Your task to perform on an android device: toggle improve location accuracy Image 0: 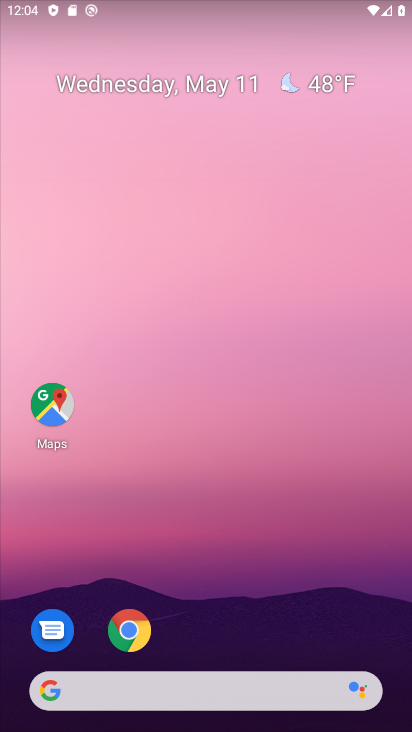
Step 0: drag from (223, 665) to (193, 0)
Your task to perform on an android device: toggle improve location accuracy Image 1: 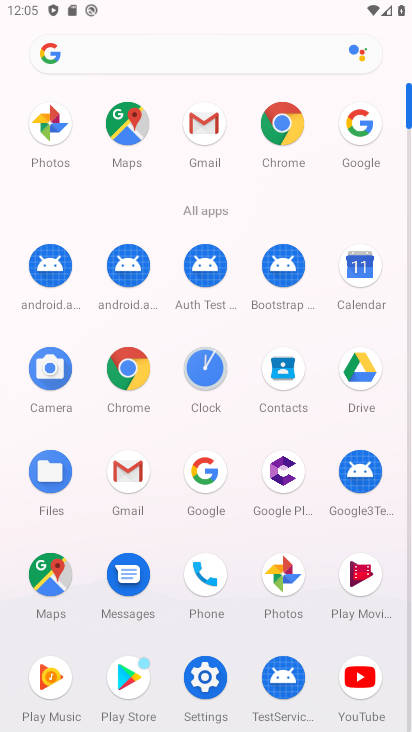
Step 1: click (201, 682)
Your task to perform on an android device: toggle improve location accuracy Image 2: 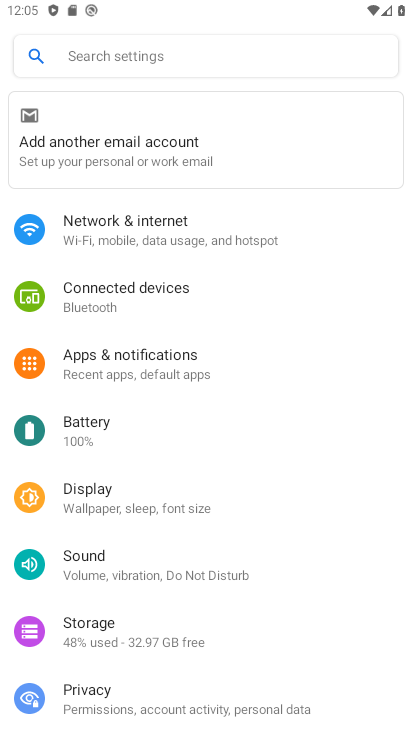
Step 2: drag from (174, 664) to (135, 189)
Your task to perform on an android device: toggle improve location accuracy Image 3: 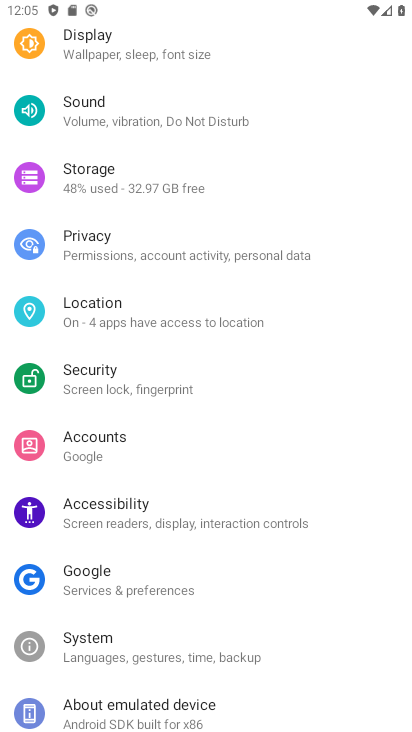
Step 3: click (85, 315)
Your task to perform on an android device: toggle improve location accuracy Image 4: 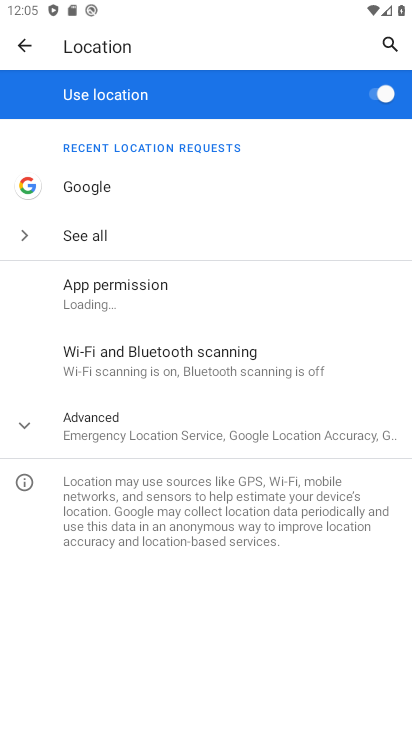
Step 4: click (125, 418)
Your task to perform on an android device: toggle improve location accuracy Image 5: 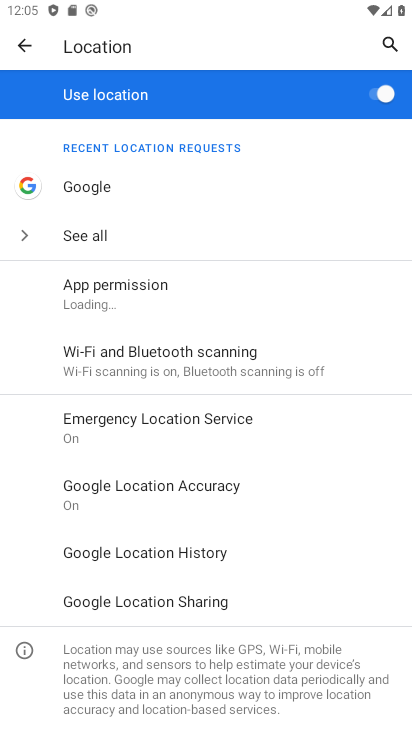
Step 5: click (162, 490)
Your task to perform on an android device: toggle improve location accuracy Image 6: 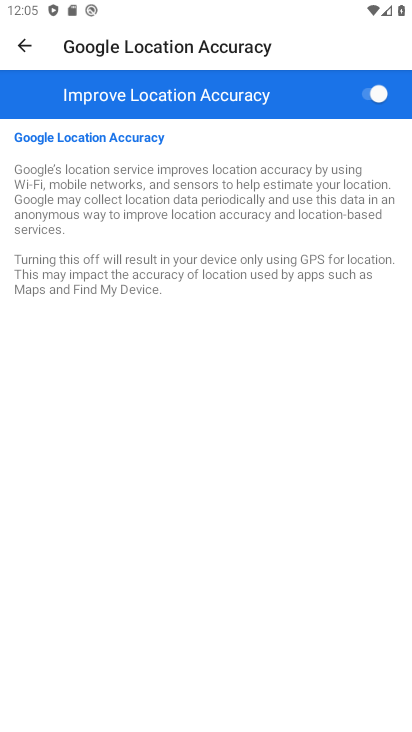
Step 6: click (356, 96)
Your task to perform on an android device: toggle improve location accuracy Image 7: 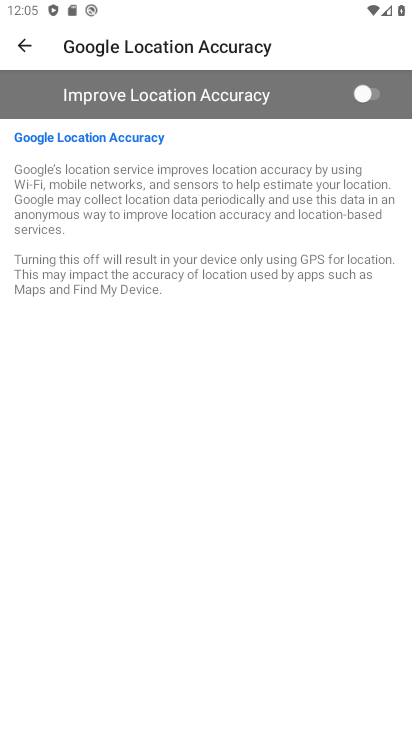
Step 7: task complete